Your task to perform on an android device: Open calendar and show me the first week of next month Image 0: 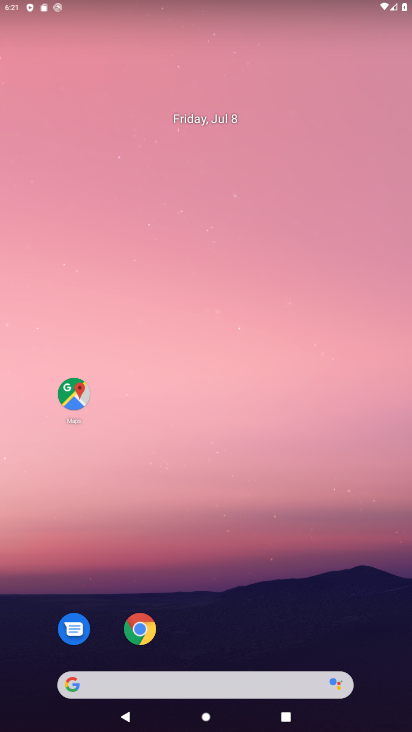
Step 0: press home button
Your task to perform on an android device: Open calendar and show me the first week of next month Image 1: 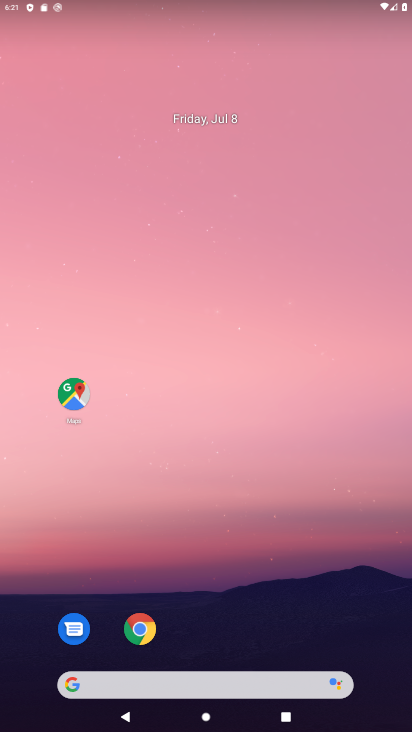
Step 1: drag from (348, 662) to (341, 14)
Your task to perform on an android device: Open calendar and show me the first week of next month Image 2: 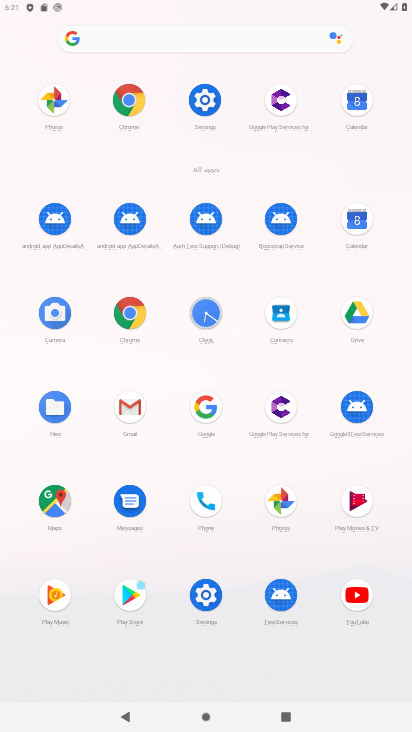
Step 2: click (356, 218)
Your task to perform on an android device: Open calendar and show me the first week of next month Image 3: 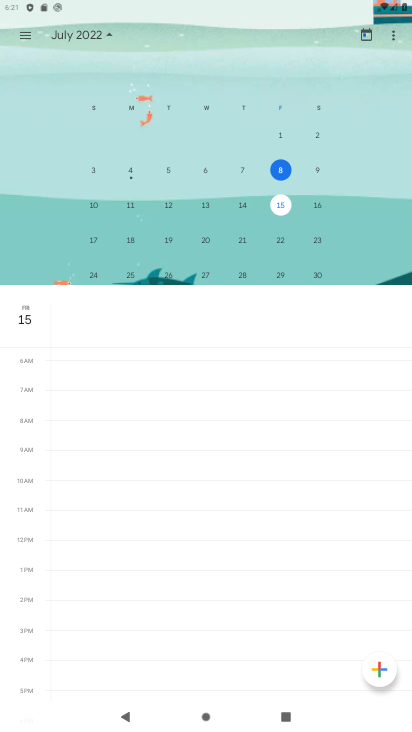
Step 3: task complete